Your task to perform on an android device: check out phone information Image 0: 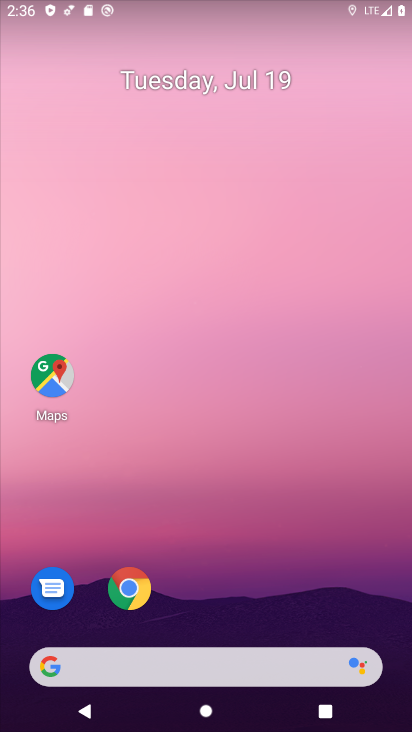
Step 0: drag from (233, 579) to (222, 42)
Your task to perform on an android device: check out phone information Image 1: 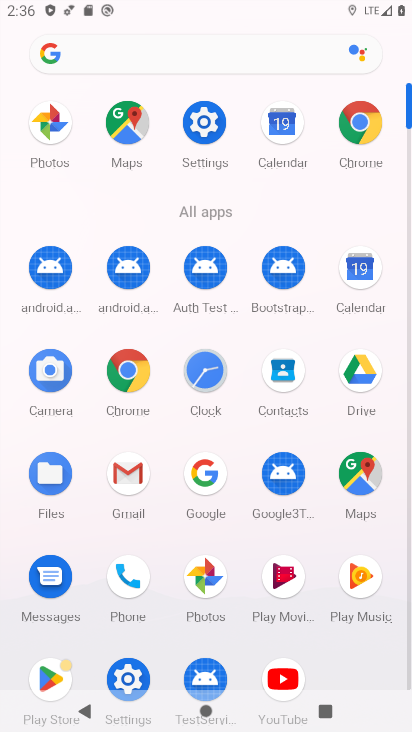
Step 1: click (201, 113)
Your task to perform on an android device: check out phone information Image 2: 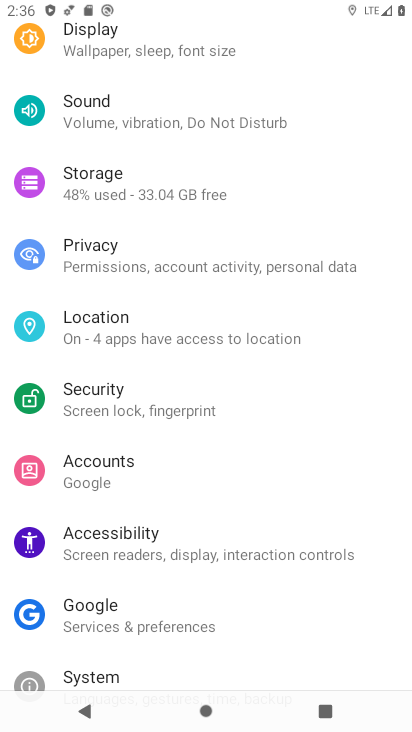
Step 2: drag from (209, 653) to (209, 142)
Your task to perform on an android device: check out phone information Image 3: 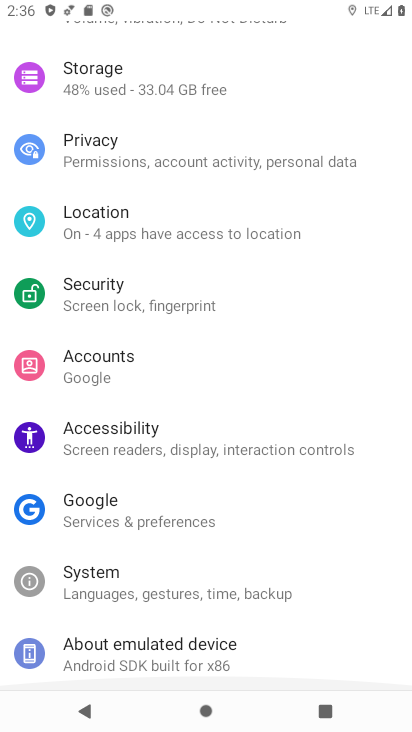
Step 3: click (131, 658)
Your task to perform on an android device: check out phone information Image 4: 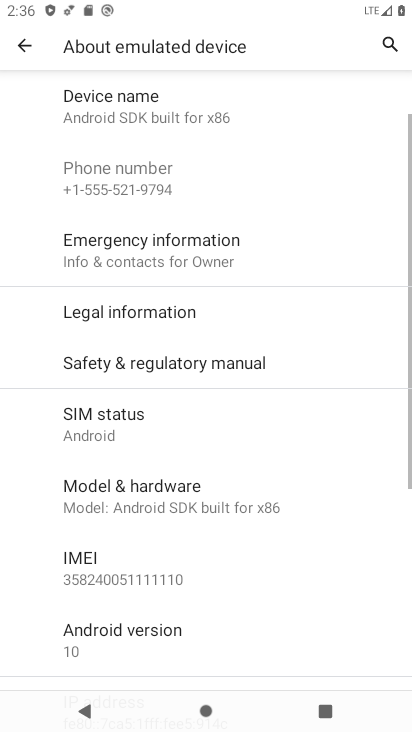
Step 4: click (236, 603)
Your task to perform on an android device: check out phone information Image 5: 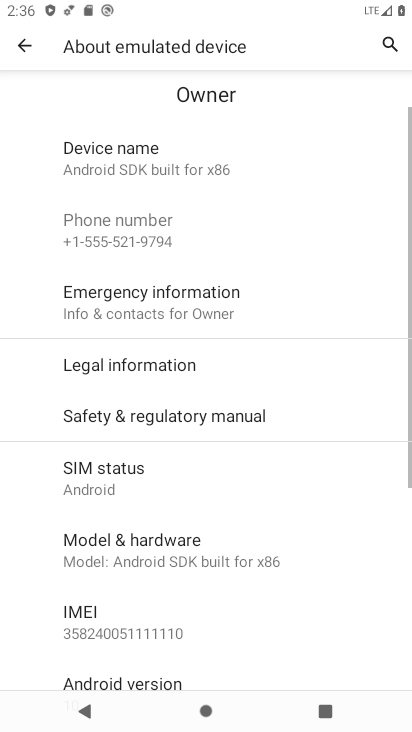
Step 5: task complete